Your task to perform on an android device: add a label to a message in the gmail app Image 0: 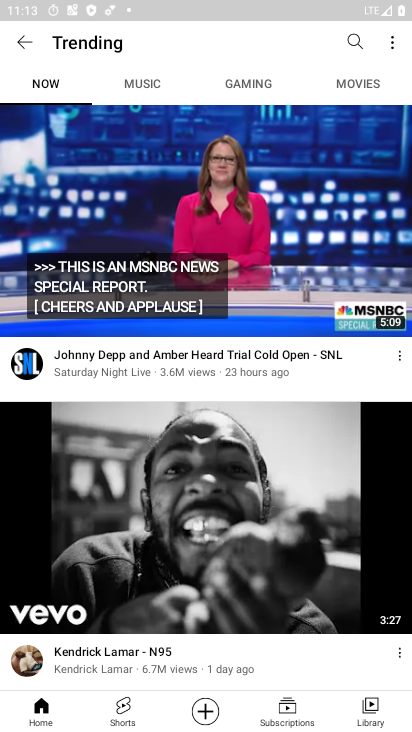
Step 0: press home button
Your task to perform on an android device: add a label to a message in the gmail app Image 1: 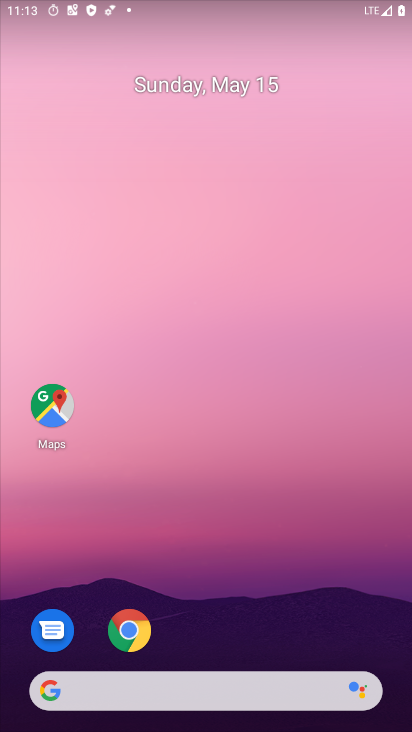
Step 1: drag from (214, 608) to (328, 94)
Your task to perform on an android device: add a label to a message in the gmail app Image 2: 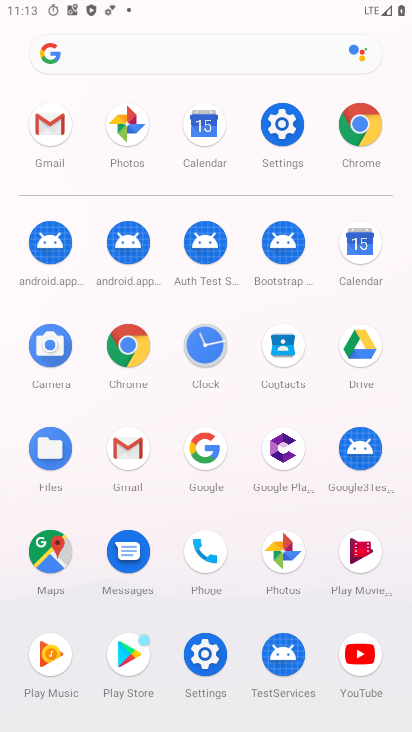
Step 2: click (47, 111)
Your task to perform on an android device: add a label to a message in the gmail app Image 3: 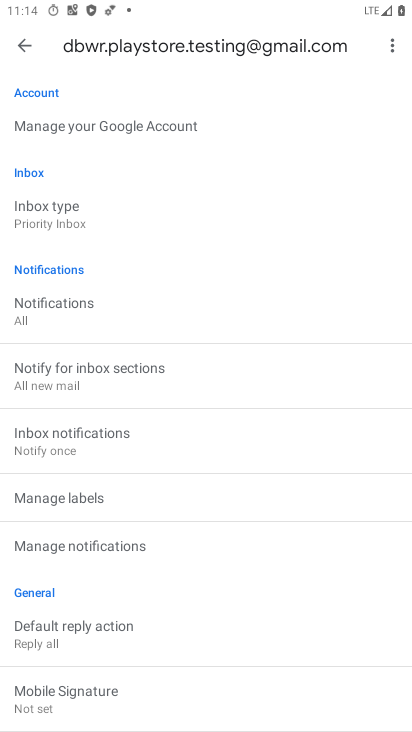
Step 3: click (16, 46)
Your task to perform on an android device: add a label to a message in the gmail app Image 4: 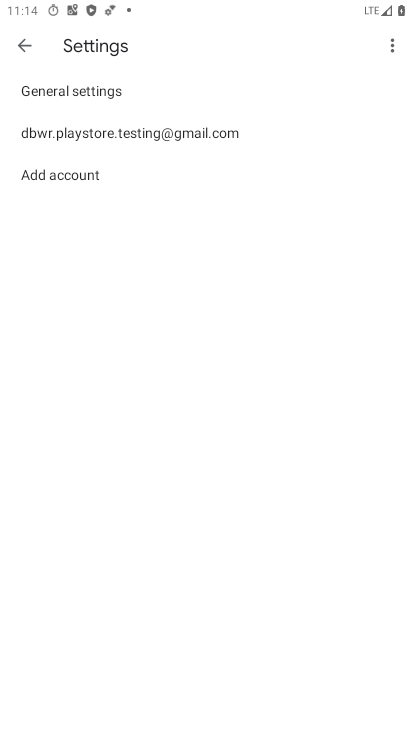
Step 4: click (14, 35)
Your task to perform on an android device: add a label to a message in the gmail app Image 5: 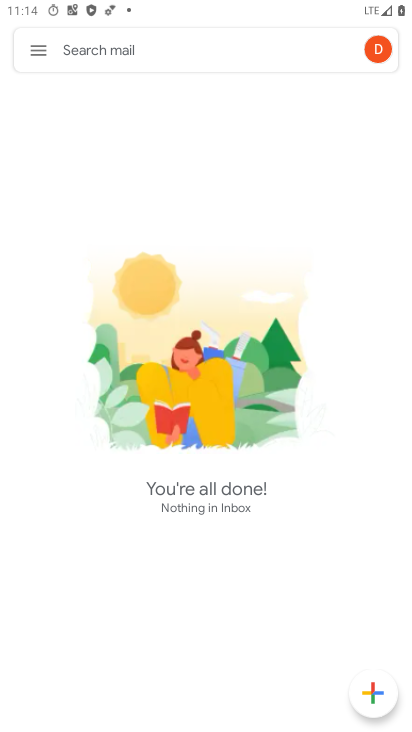
Step 5: click (27, 50)
Your task to perform on an android device: add a label to a message in the gmail app Image 6: 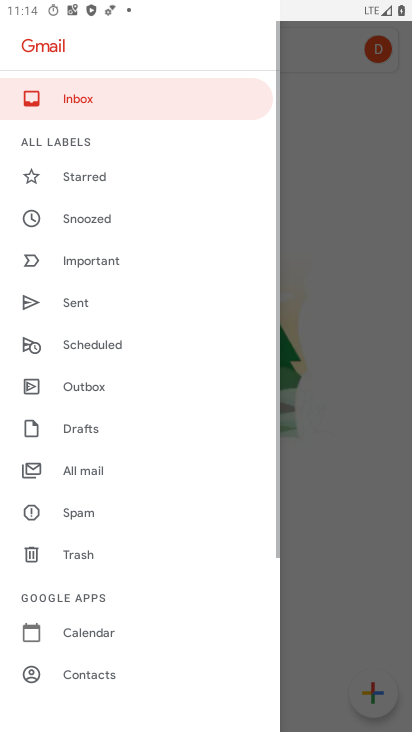
Step 6: click (67, 470)
Your task to perform on an android device: add a label to a message in the gmail app Image 7: 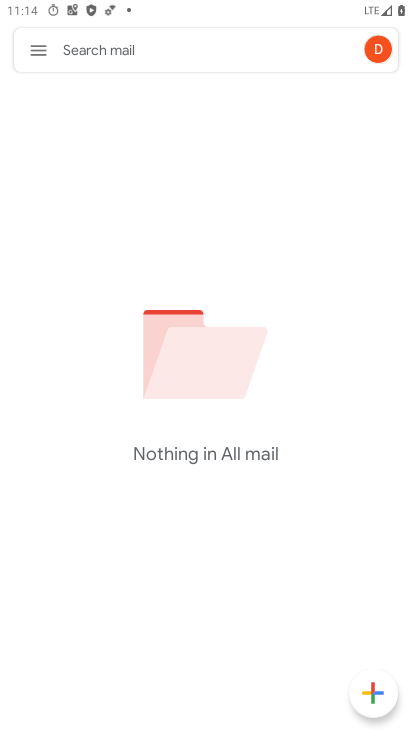
Step 7: task complete